Your task to perform on an android device: Open calendar and show me the first week of next month Image 0: 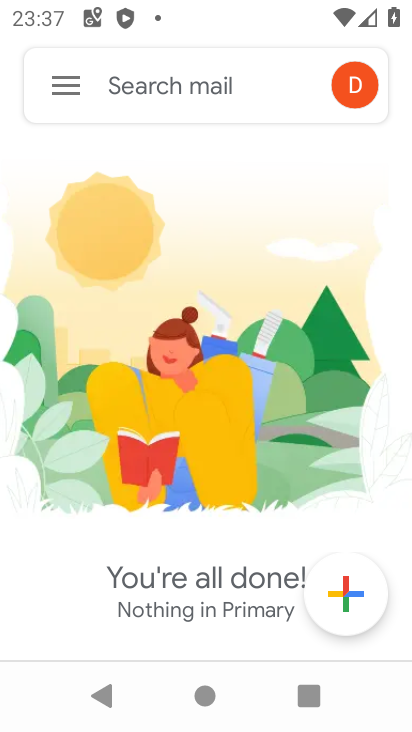
Step 0: press home button
Your task to perform on an android device: Open calendar and show me the first week of next month Image 1: 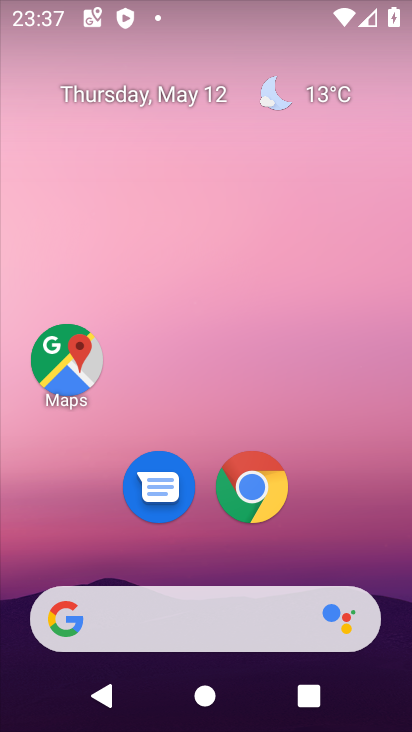
Step 1: click (148, 95)
Your task to perform on an android device: Open calendar and show me the first week of next month Image 2: 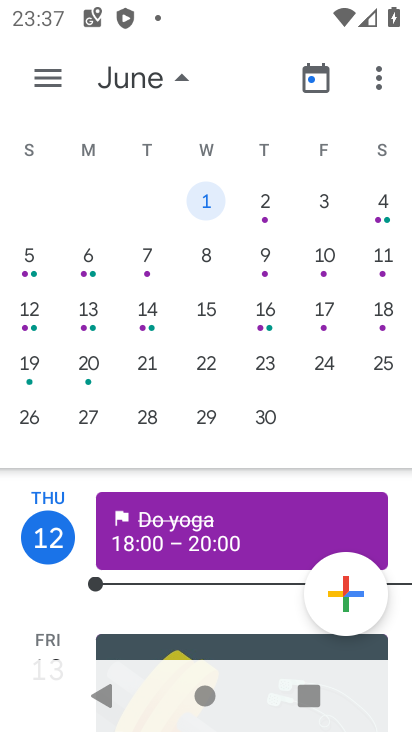
Step 2: click (264, 194)
Your task to perform on an android device: Open calendar and show me the first week of next month Image 3: 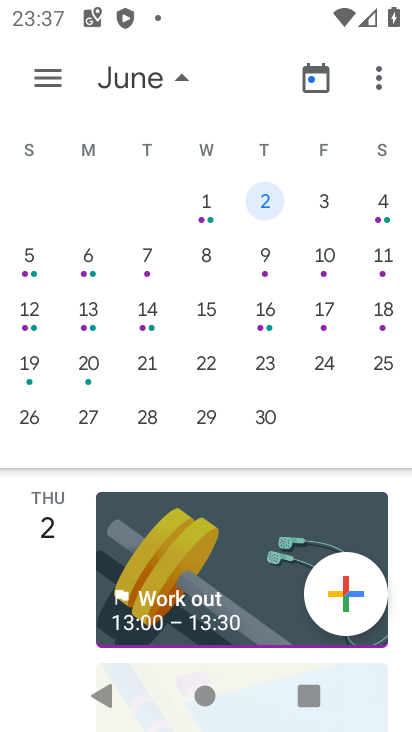
Step 3: task complete